Your task to perform on an android device: Open Google Maps and go to "Timeline" Image 0: 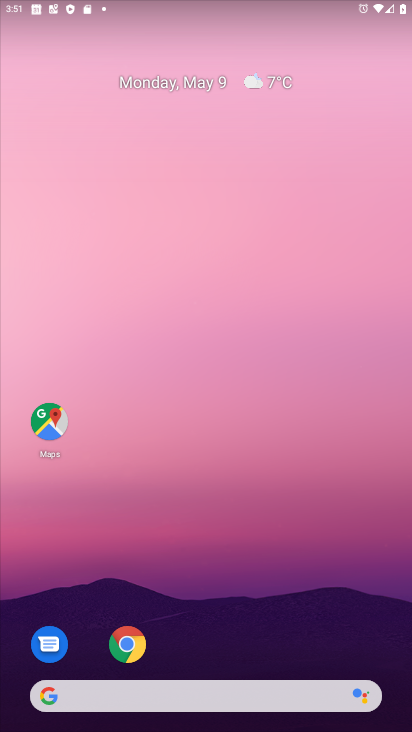
Step 0: drag from (261, 671) to (106, 43)
Your task to perform on an android device: Open Google Maps and go to "Timeline" Image 1: 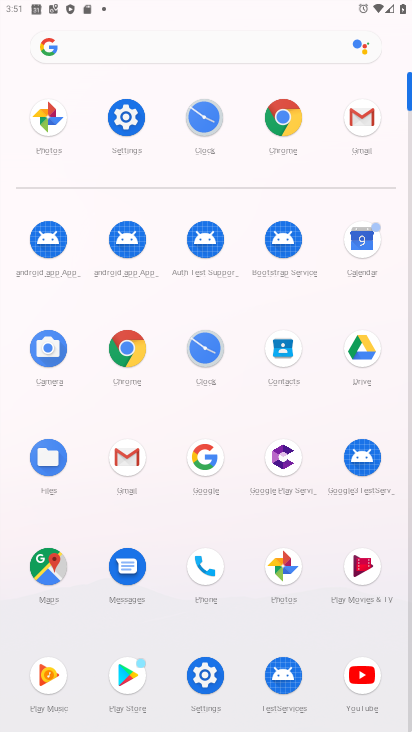
Step 1: click (49, 572)
Your task to perform on an android device: Open Google Maps and go to "Timeline" Image 2: 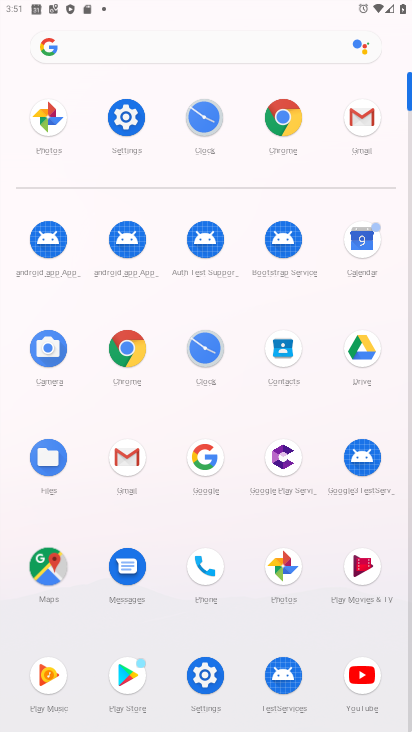
Step 2: click (50, 564)
Your task to perform on an android device: Open Google Maps and go to "Timeline" Image 3: 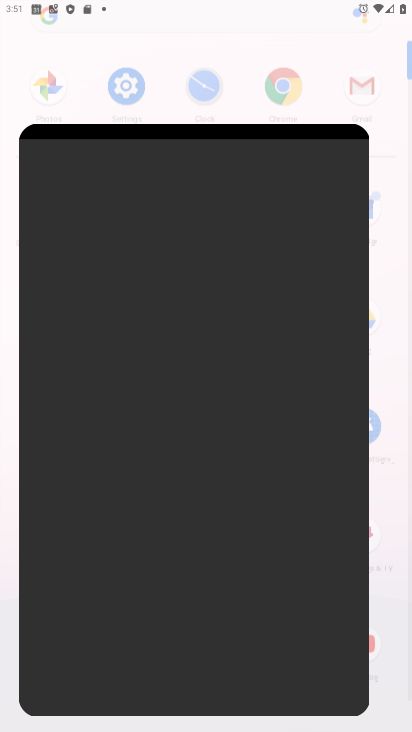
Step 3: click (50, 565)
Your task to perform on an android device: Open Google Maps and go to "Timeline" Image 4: 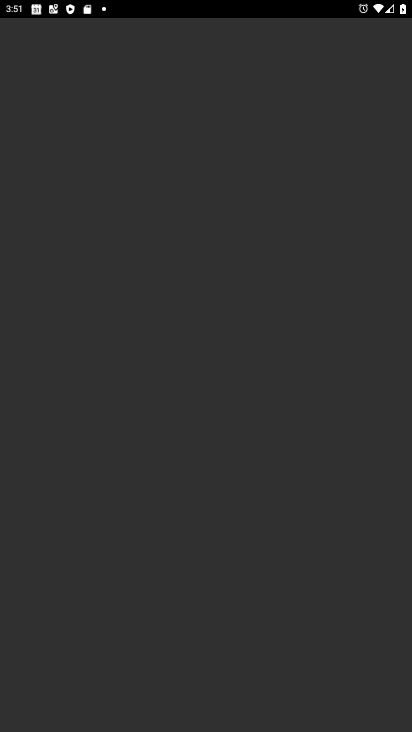
Step 4: click (56, 569)
Your task to perform on an android device: Open Google Maps and go to "Timeline" Image 5: 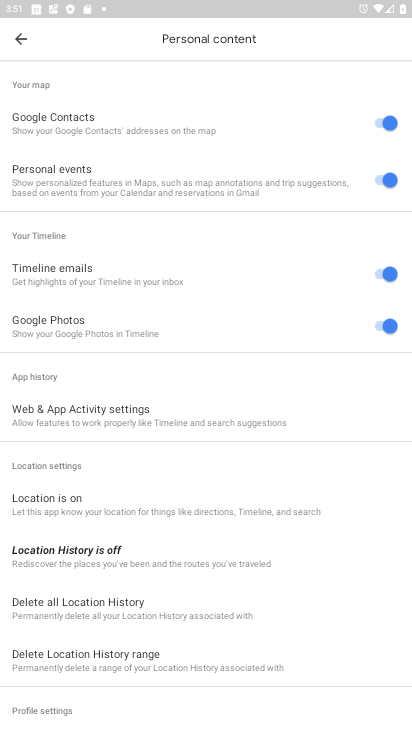
Step 5: click (14, 34)
Your task to perform on an android device: Open Google Maps and go to "Timeline" Image 6: 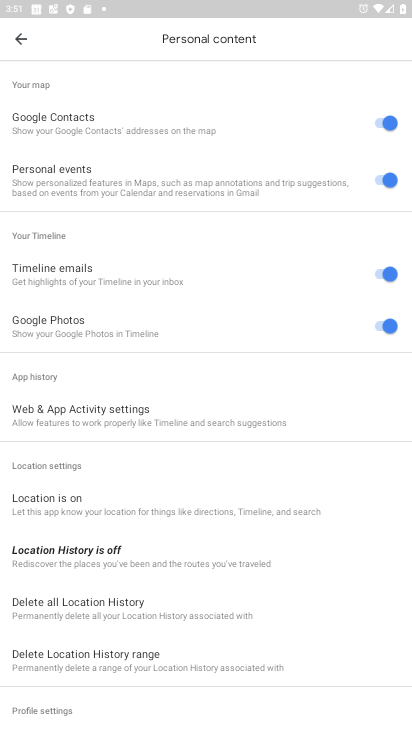
Step 6: click (14, 34)
Your task to perform on an android device: Open Google Maps and go to "Timeline" Image 7: 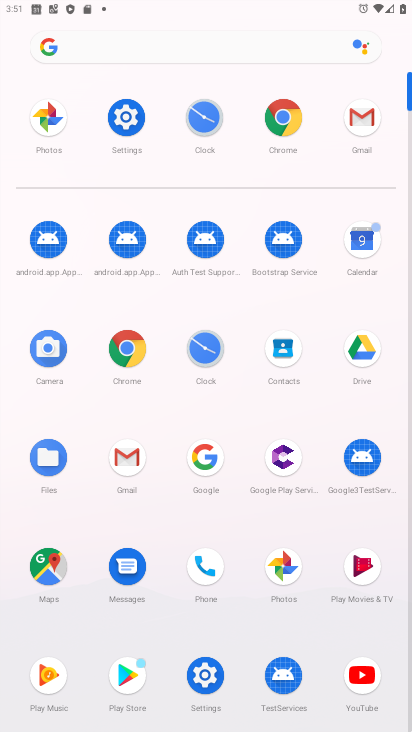
Step 7: click (50, 564)
Your task to perform on an android device: Open Google Maps and go to "Timeline" Image 8: 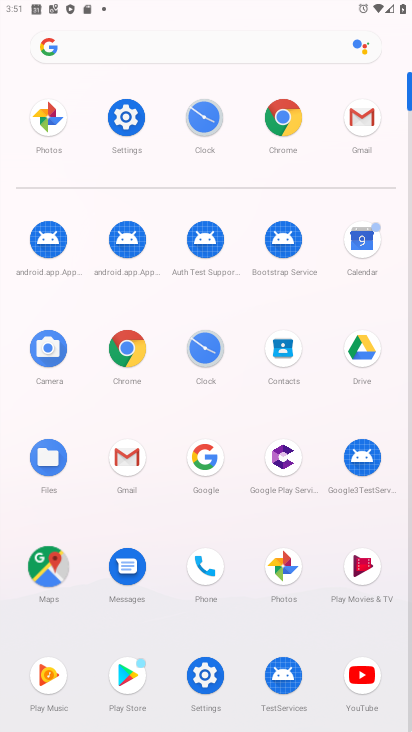
Step 8: click (50, 564)
Your task to perform on an android device: Open Google Maps and go to "Timeline" Image 9: 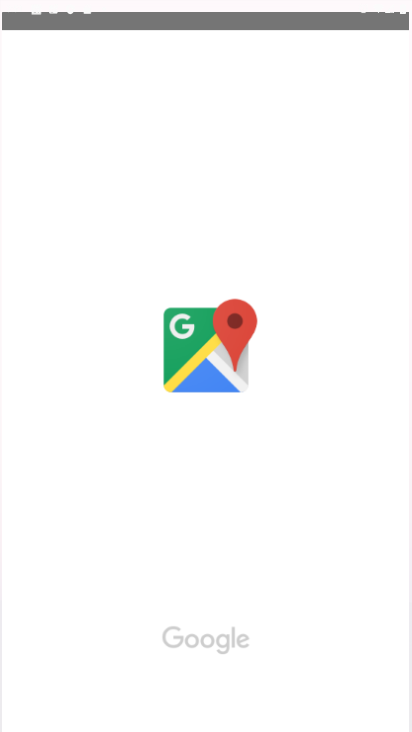
Step 9: click (50, 564)
Your task to perform on an android device: Open Google Maps and go to "Timeline" Image 10: 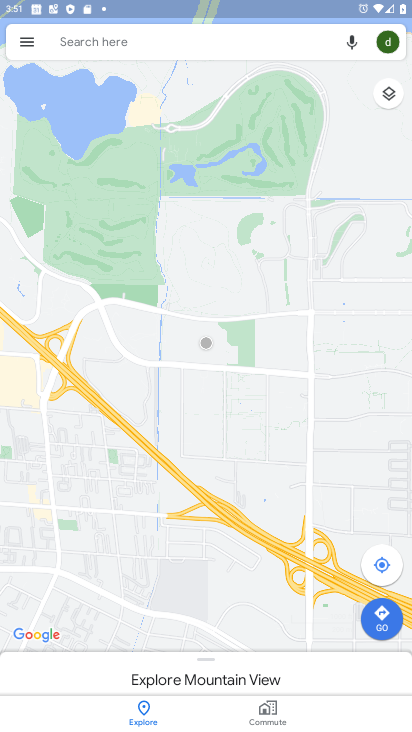
Step 10: click (24, 43)
Your task to perform on an android device: Open Google Maps and go to "Timeline" Image 11: 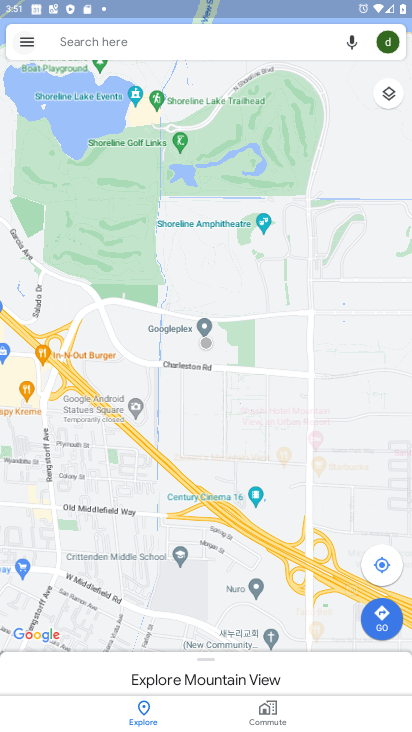
Step 11: click (24, 43)
Your task to perform on an android device: Open Google Maps and go to "Timeline" Image 12: 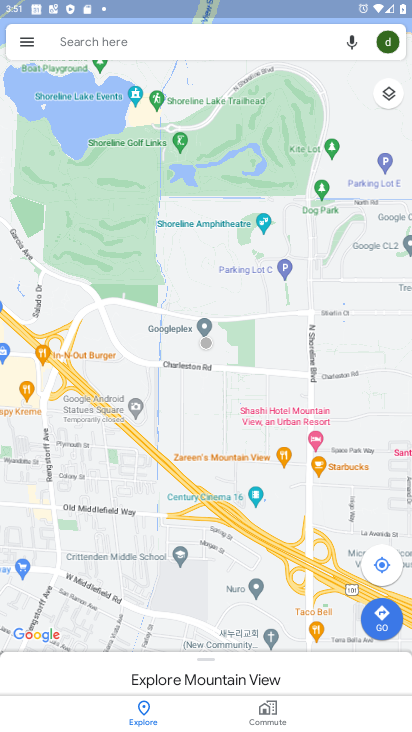
Step 12: click (24, 44)
Your task to perform on an android device: Open Google Maps and go to "Timeline" Image 13: 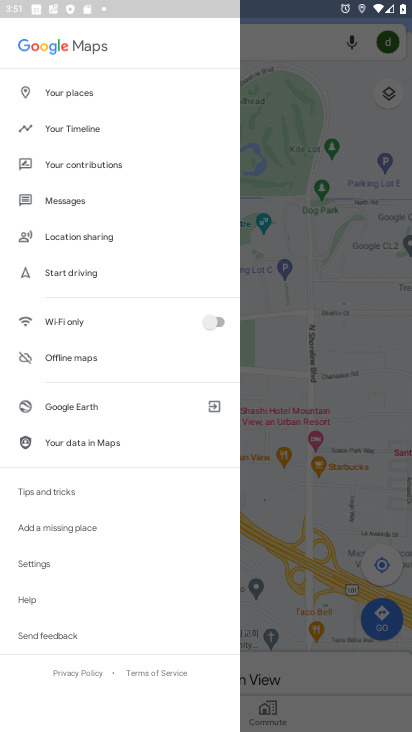
Step 13: click (33, 48)
Your task to perform on an android device: Open Google Maps and go to "Timeline" Image 14: 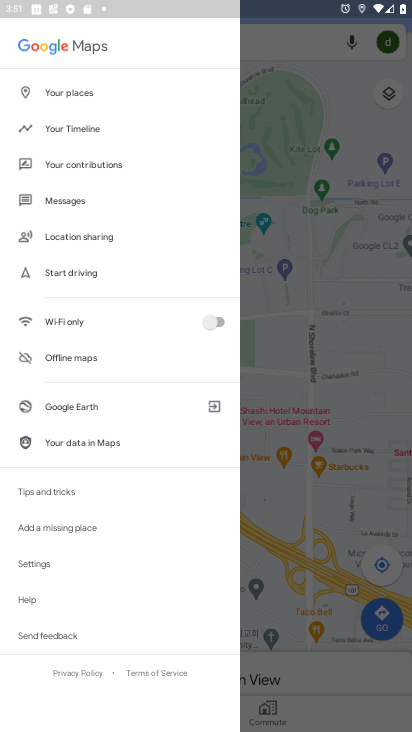
Step 14: click (70, 122)
Your task to perform on an android device: Open Google Maps and go to "Timeline" Image 15: 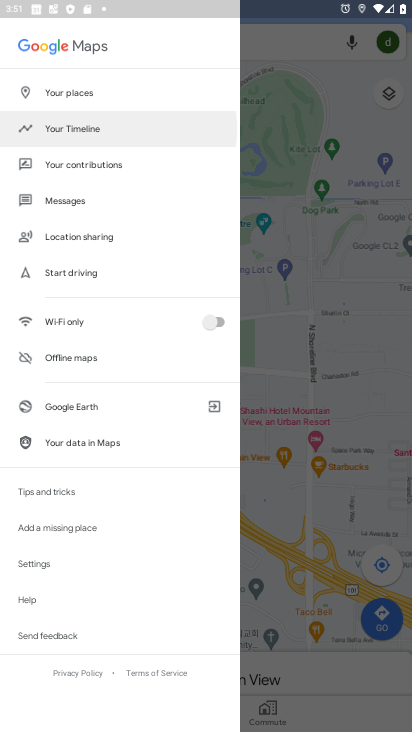
Step 15: click (67, 126)
Your task to perform on an android device: Open Google Maps and go to "Timeline" Image 16: 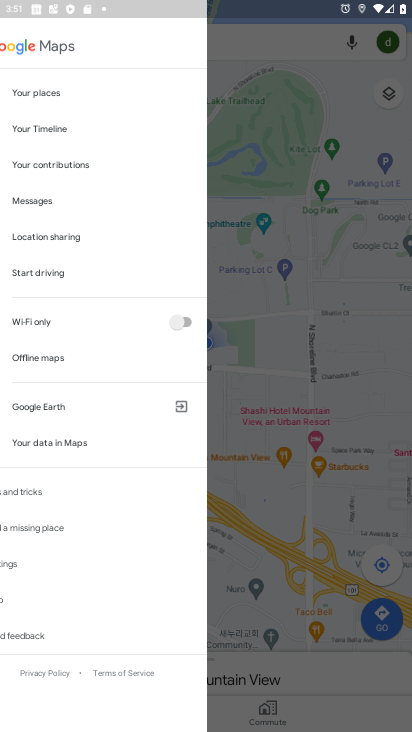
Step 16: click (67, 126)
Your task to perform on an android device: Open Google Maps and go to "Timeline" Image 17: 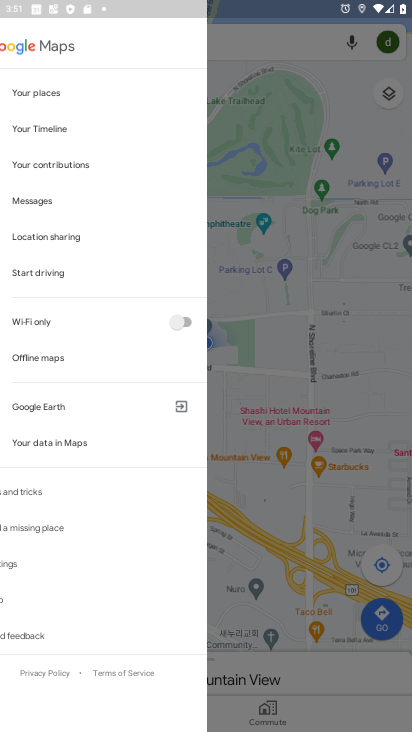
Step 17: click (68, 125)
Your task to perform on an android device: Open Google Maps and go to "Timeline" Image 18: 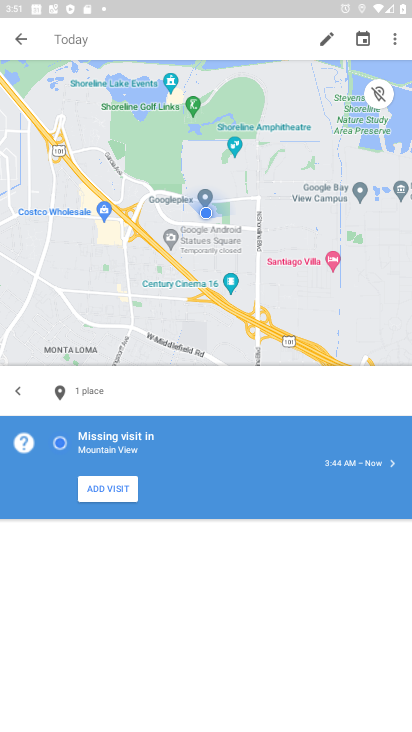
Step 18: task complete